Your task to perform on an android device: create a new album in the google photos Image 0: 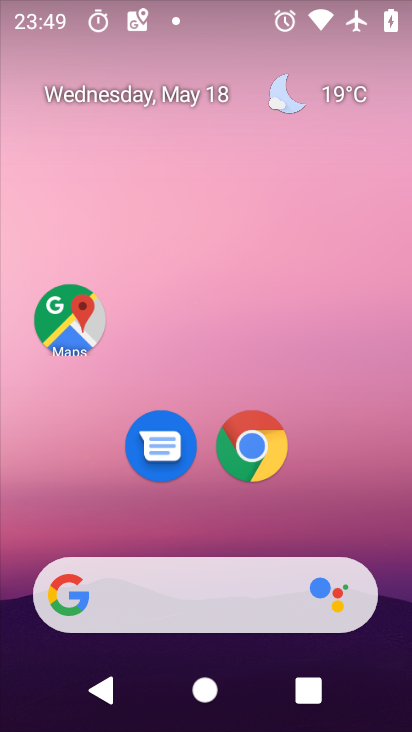
Step 0: press home button
Your task to perform on an android device: create a new album in the google photos Image 1: 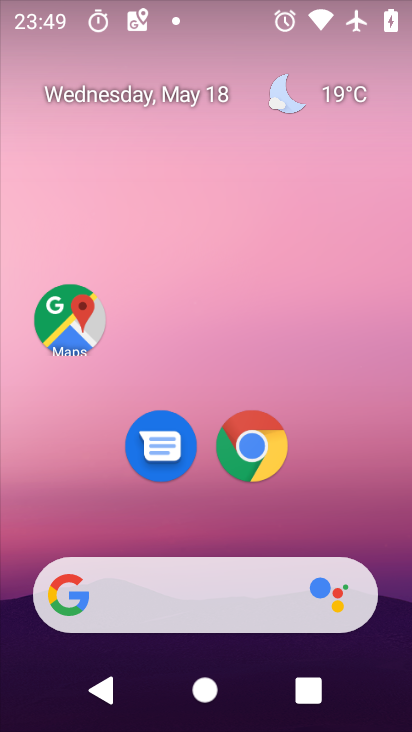
Step 1: drag from (185, 588) to (325, 168)
Your task to perform on an android device: create a new album in the google photos Image 2: 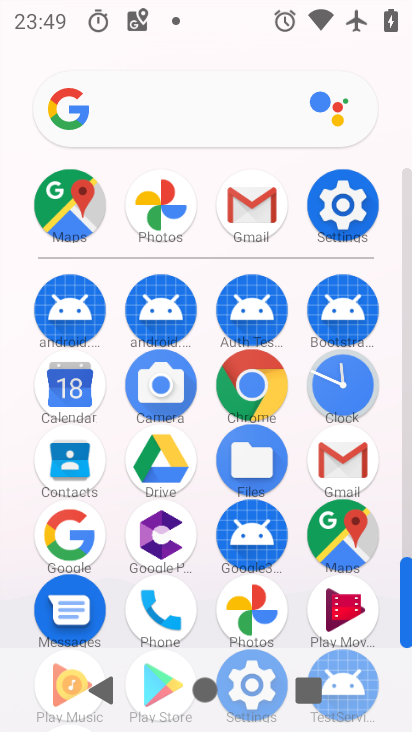
Step 2: click (253, 605)
Your task to perform on an android device: create a new album in the google photos Image 3: 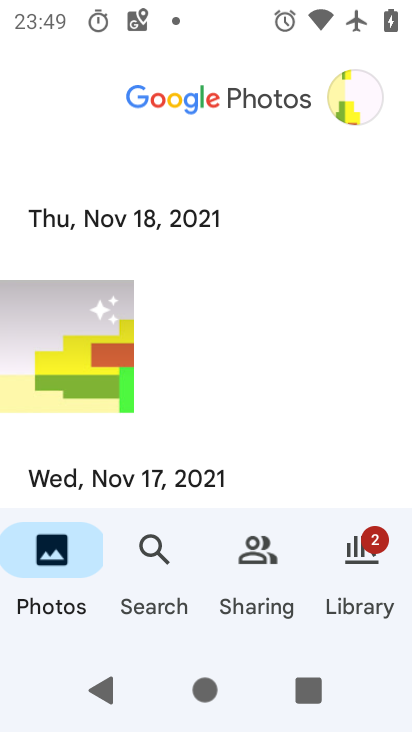
Step 3: click (375, 580)
Your task to perform on an android device: create a new album in the google photos Image 4: 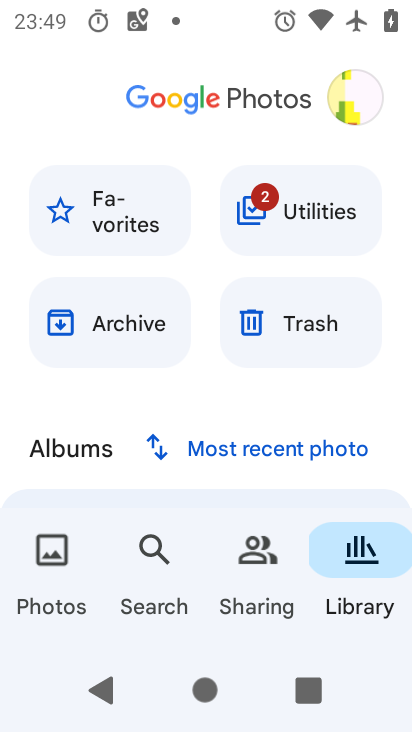
Step 4: drag from (221, 407) to (356, 61)
Your task to perform on an android device: create a new album in the google photos Image 5: 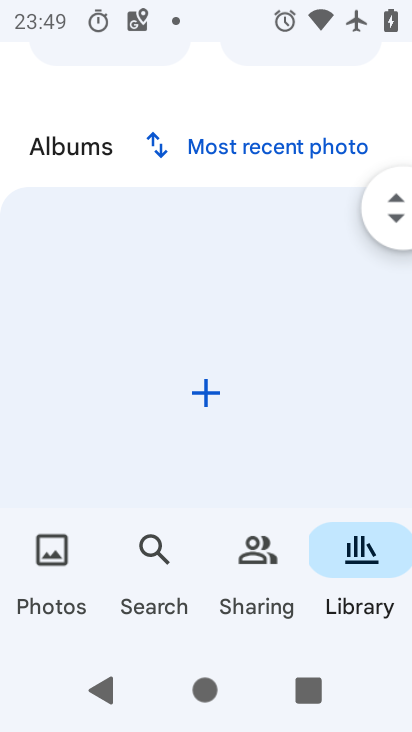
Step 5: click (209, 381)
Your task to perform on an android device: create a new album in the google photos Image 6: 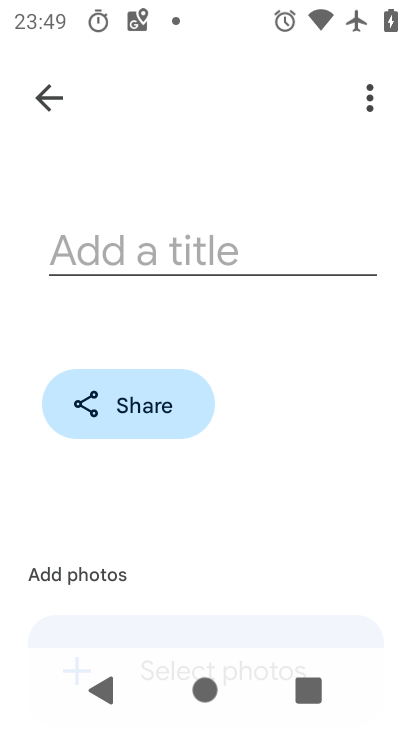
Step 6: drag from (245, 511) to (350, 90)
Your task to perform on an android device: create a new album in the google photos Image 7: 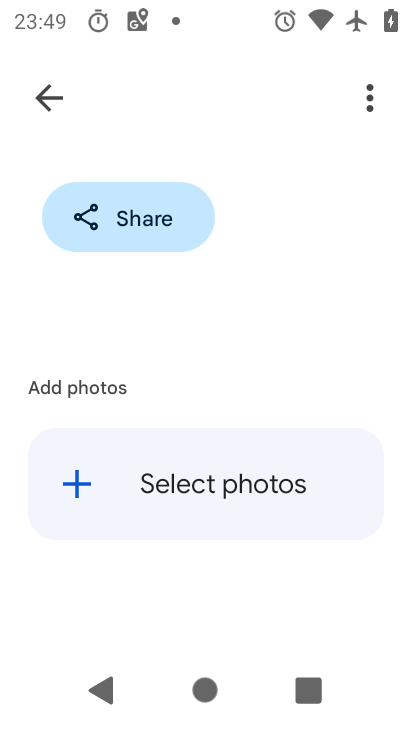
Step 7: click (198, 476)
Your task to perform on an android device: create a new album in the google photos Image 8: 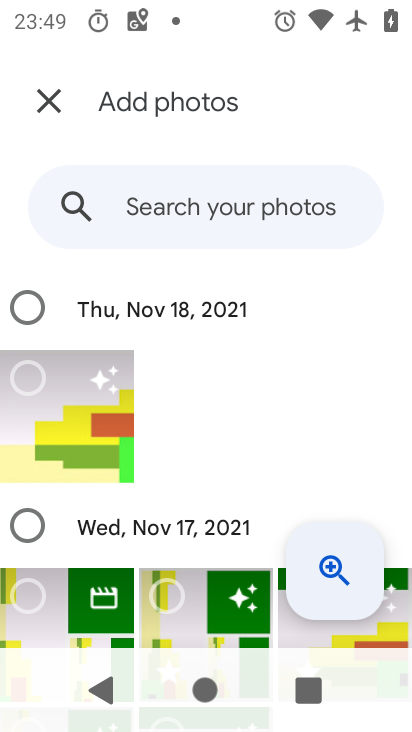
Step 8: click (74, 421)
Your task to perform on an android device: create a new album in the google photos Image 9: 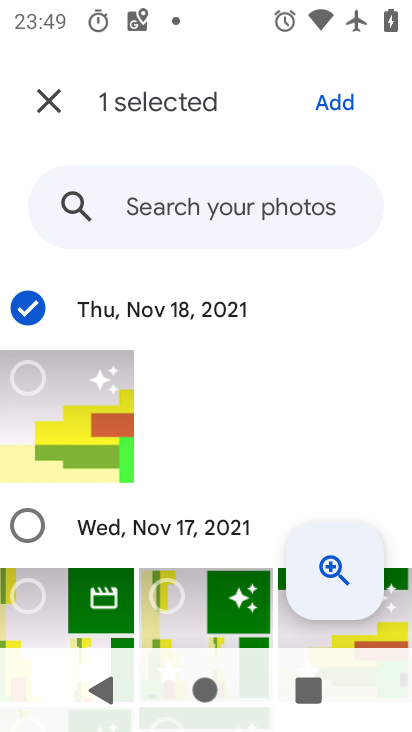
Step 9: click (77, 593)
Your task to perform on an android device: create a new album in the google photos Image 10: 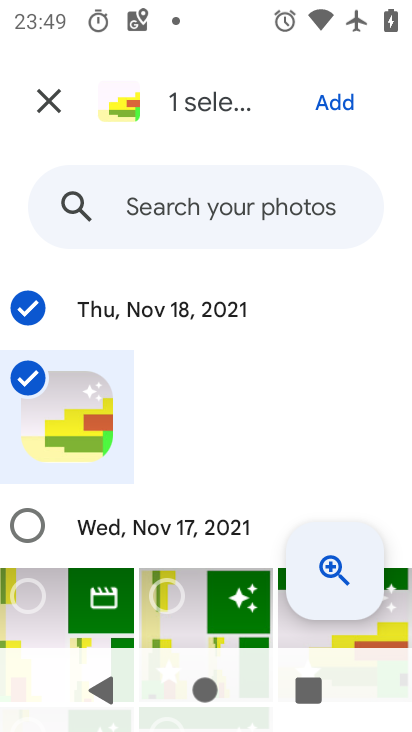
Step 10: click (184, 595)
Your task to perform on an android device: create a new album in the google photos Image 11: 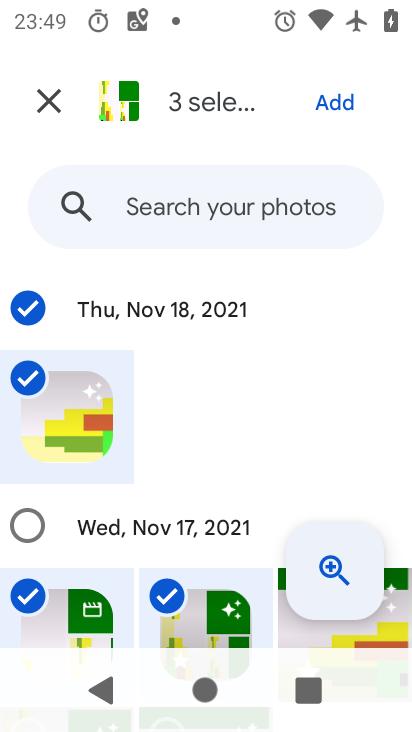
Step 11: click (337, 96)
Your task to perform on an android device: create a new album in the google photos Image 12: 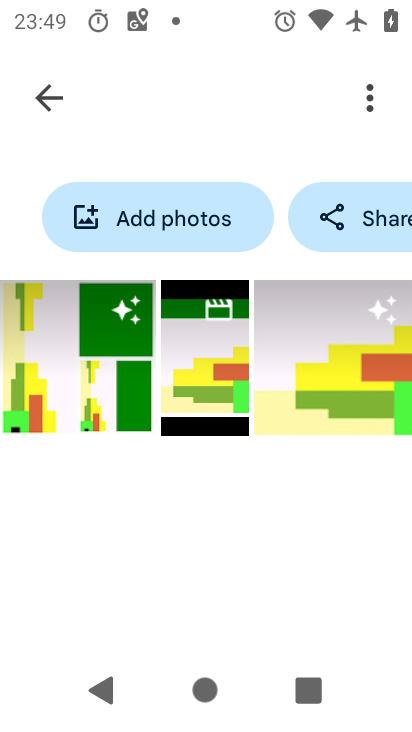
Step 12: task complete